Your task to perform on an android device: choose inbox layout in the gmail app Image 0: 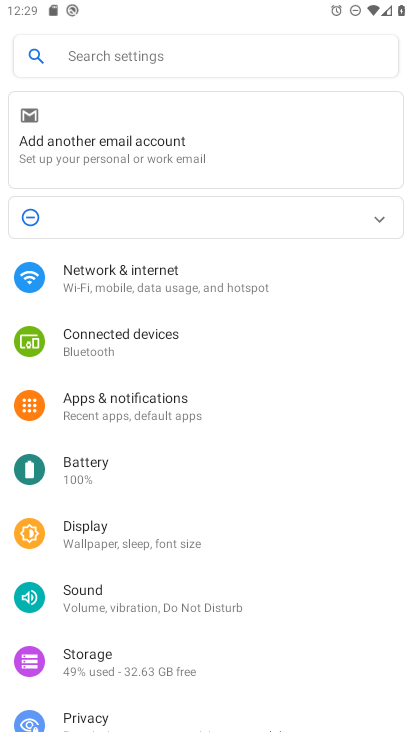
Step 0: press home button
Your task to perform on an android device: choose inbox layout in the gmail app Image 1: 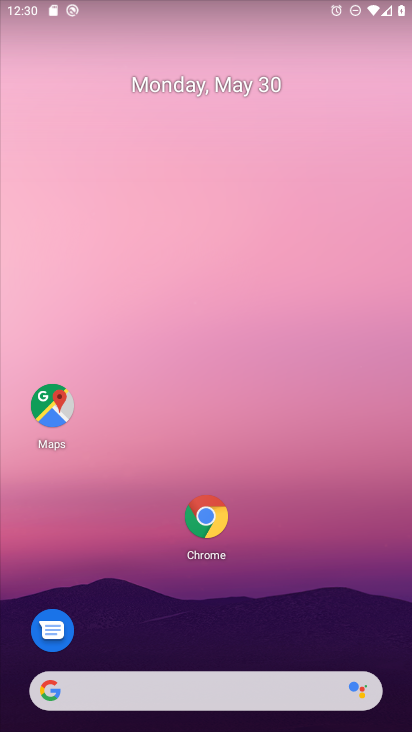
Step 1: drag from (173, 696) to (328, 85)
Your task to perform on an android device: choose inbox layout in the gmail app Image 2: 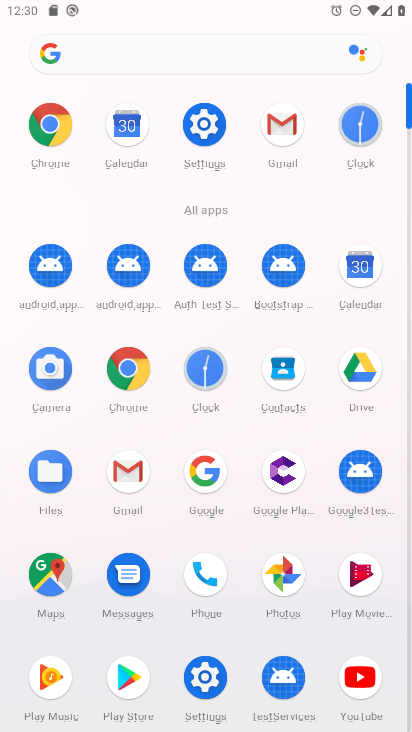
Step 2: click (289, 129)
Your task to perform on an android device: choose inbox layout in the gmail app Image 3: 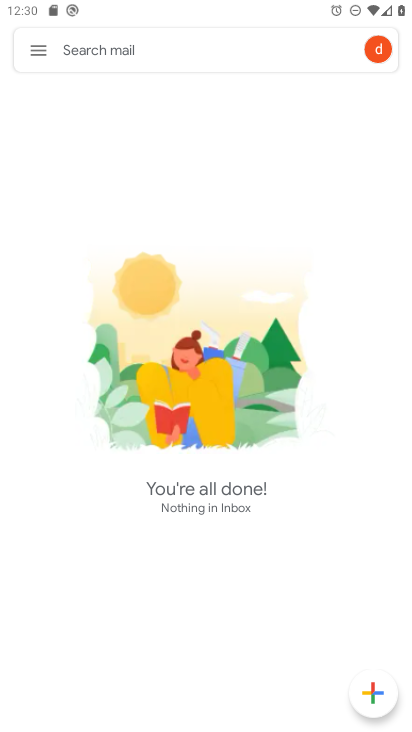
Step 3: click (38, 50)
Your task to perform on an android device: choose inbox layout in the gmail app Image 4: 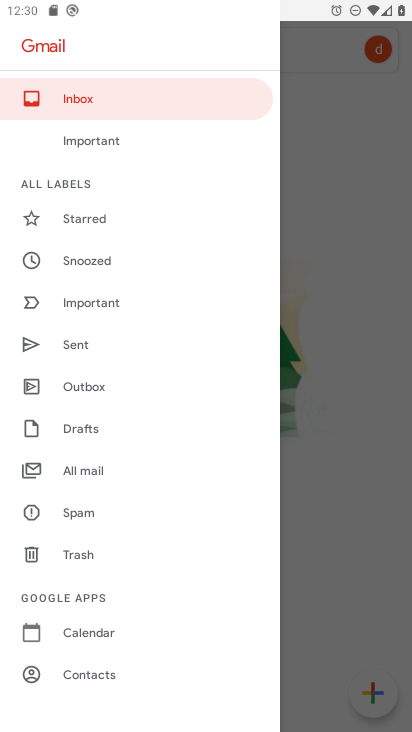
Step 4: drag from (168, 556) to (242, 63)
Your task to perform on an android device: choose inbox layout in the gmail app Image 5: 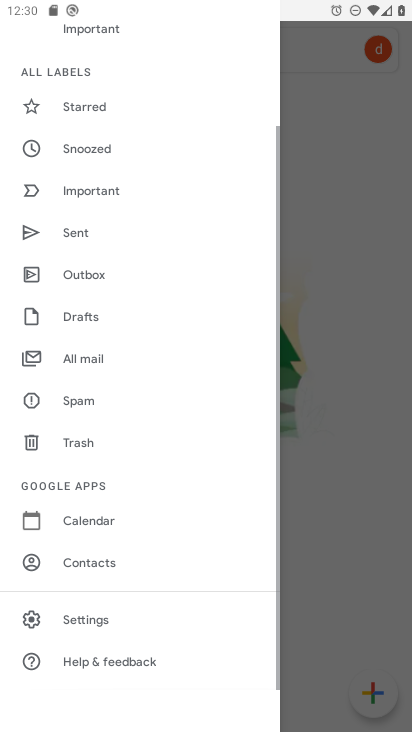
Step 5: click (90, 628)
Your task to perform on an android device: choose inbox layout in the gmail app Image 6: 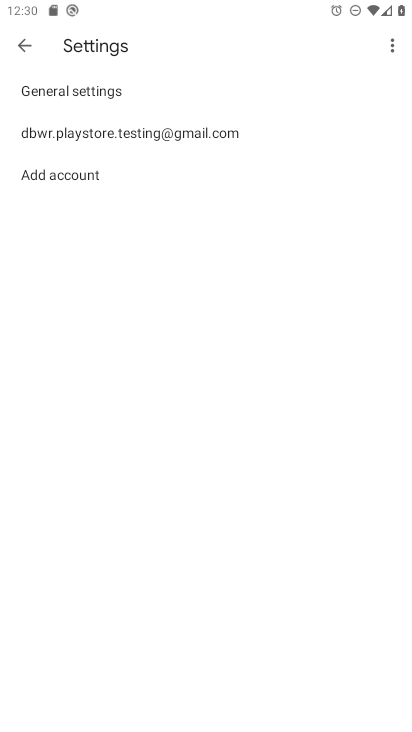
Step 6: click (225, 123)
Your task to perform on an android device: choose inbox layout in the gmail app Image 7: 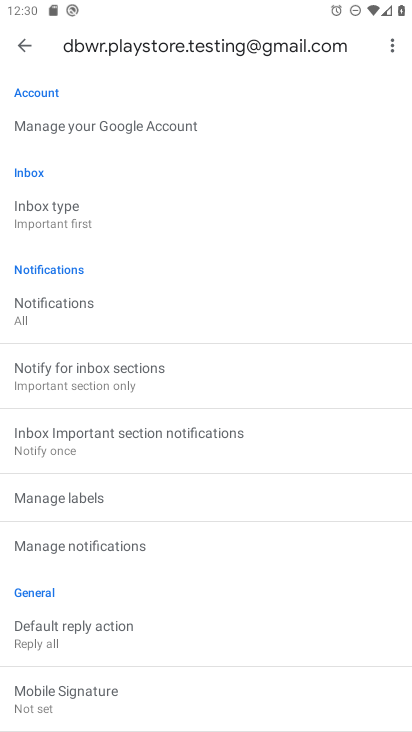
Step 7: click (51, 224)
Your task to perform on an android device: choose inbox layout in the gmail app Image 8: 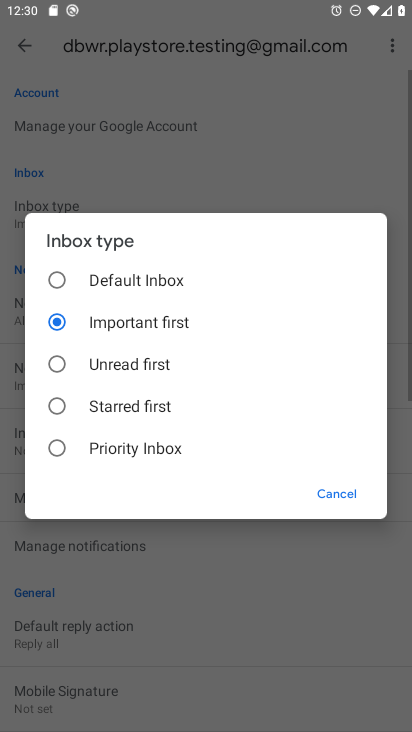
Step 8: click (58, 452)
Your task to perform on an android device: choose inbox layout in the gmail app Image 9: 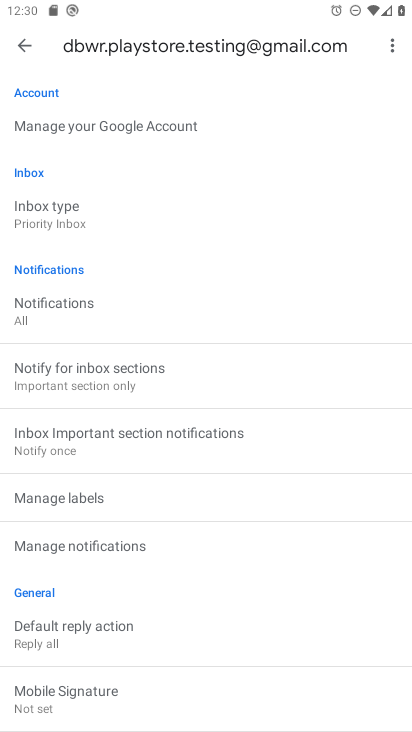
Step 9: task complete